Your task to perform on an android device: turn on showing notifications on the lock screen Image 0: 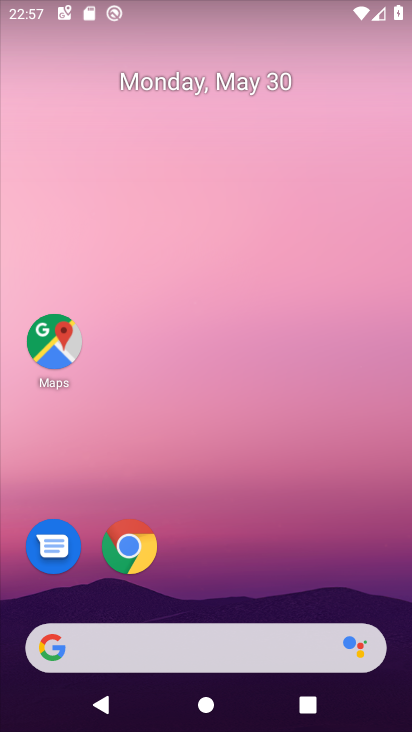
Step 0: drag from (189, 598) to (298, 13)
Your task to perform on an android device: turn on showing notifications on the lock screen Image 1: 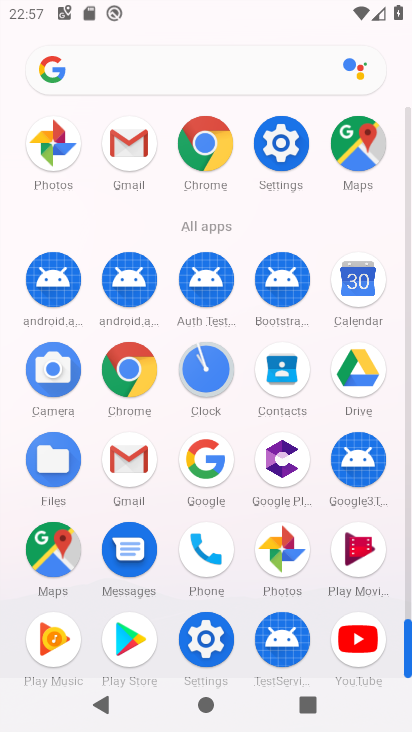
Step 1: click (275, 152)
Your task to perform on an android device: turn on showing notifications on the lock screen Image 2: 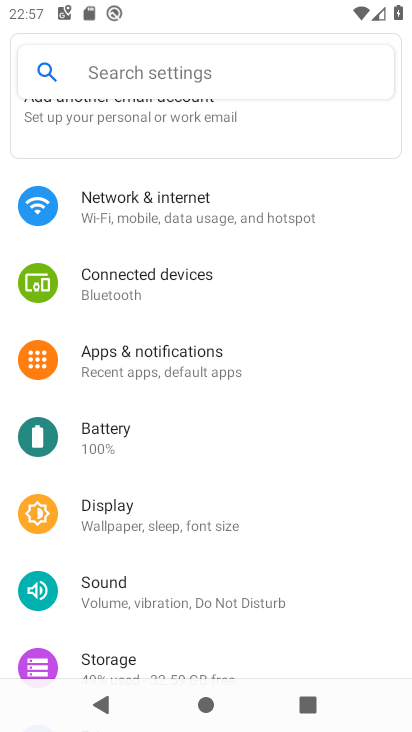
Step 2: click (190, 372)
Your task to perform on an android device: turn on showing notifications on the lock screen Image 3: 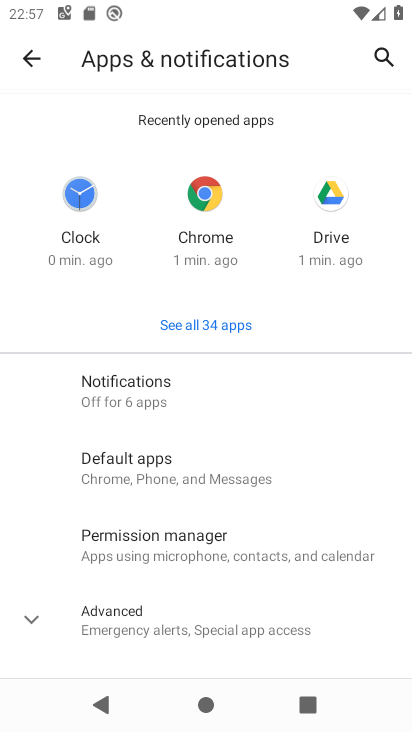
Step 3: click (135, 391)
Your task to perform on an android device: turn on showing notifications on the lock screen Image 4: 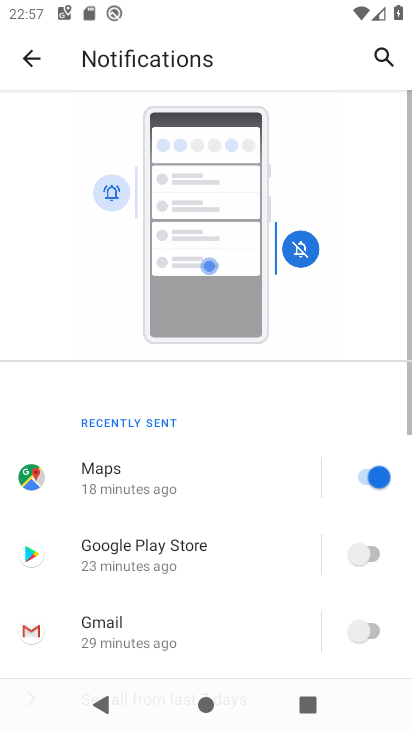
Step 4: drag from (160, 595) to (218, 207)
Your task to perform on an android device: turn on showing notifications on the lock screen Image 5: 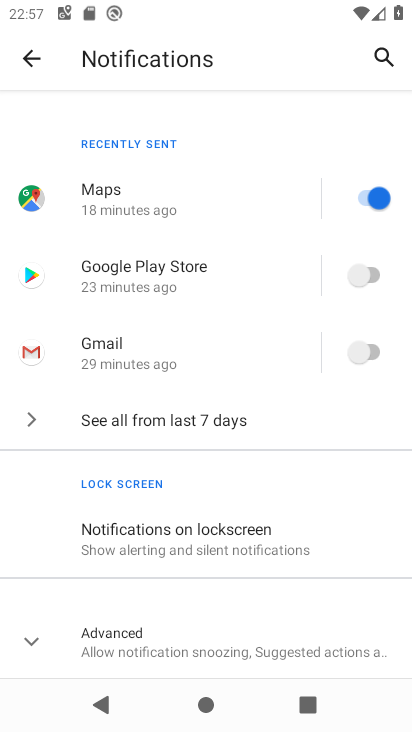
Step 5: click (144, 559)
Your task to perform on an android device: turn on showing notifications on the lock screen Image 6: 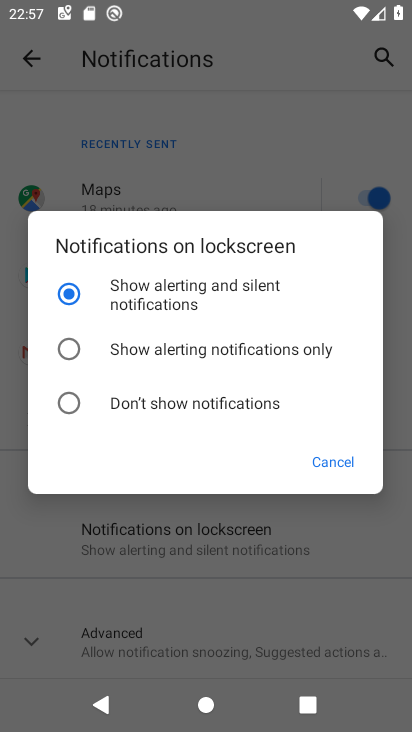
Step 6: task complete